Your task to perform on an android device: check android version Image 0: 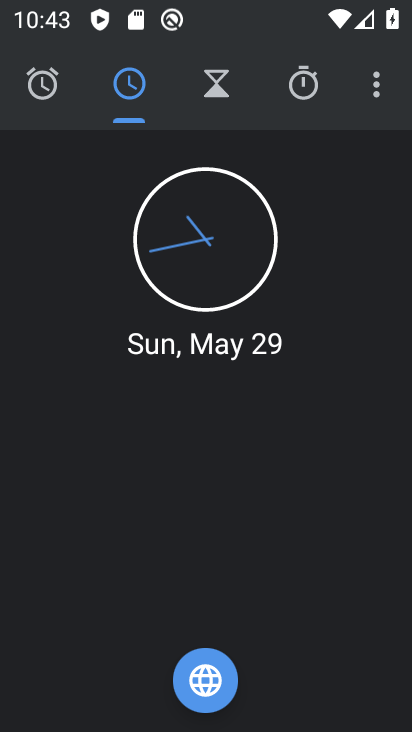
Step 0: press home button
Your task to perform on an android device: check android version Image 1: 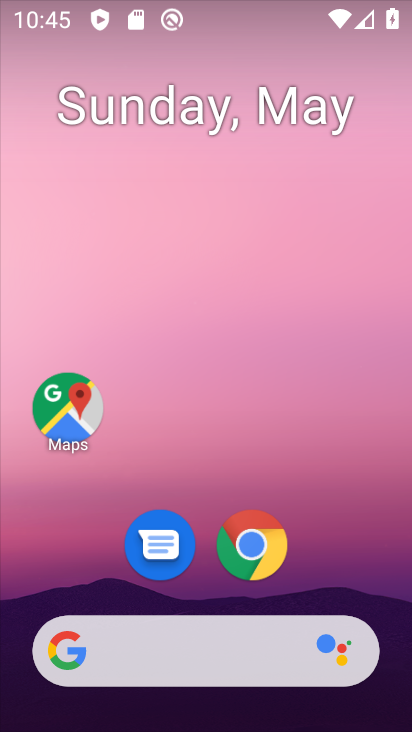
Step 1: drag from (351, 552) to (333, 168)
Your task to perform on an android device: check android version Image 2: 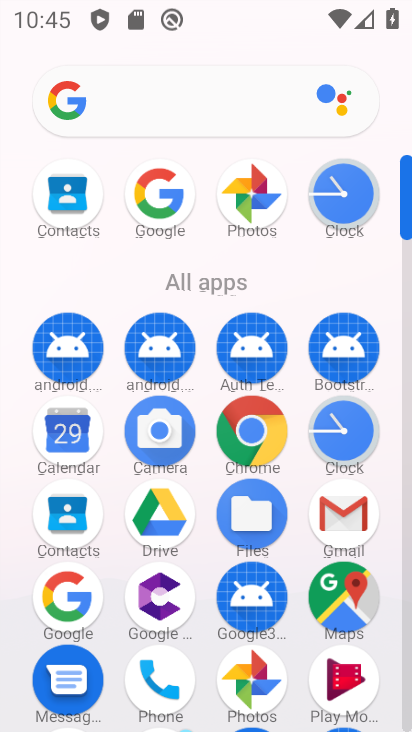
Step 2: drag from (208, 555) to (99, 144)
Your task to perform on an android device: check android version Image 3: 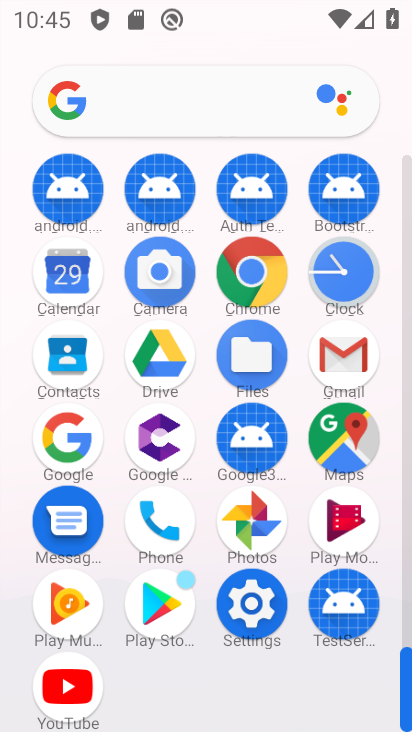
Step 3: click (272, 607)
Your task to perform on an android device: check android version Image 4: 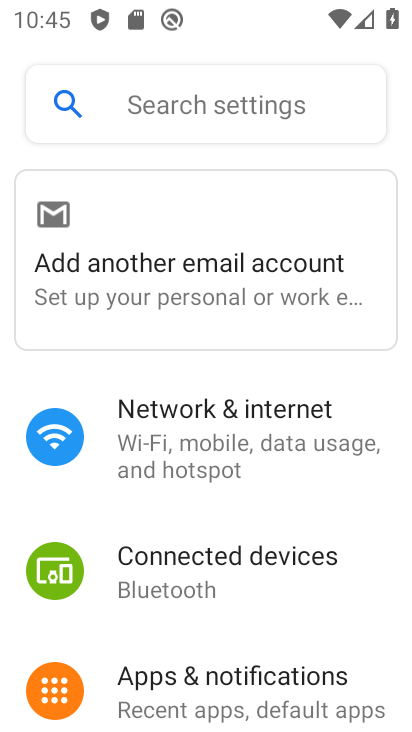
Step 4: drag from (165, 648) to (152, 207)
Your task to perform on an android device: check android version Image 5: 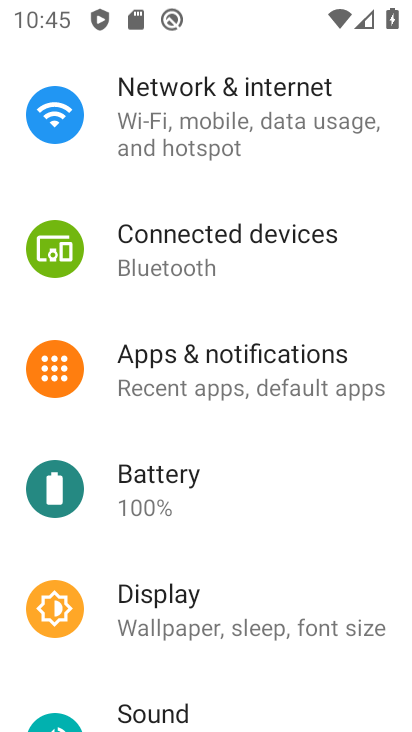
Step 5: drag from (281, 676) to (263, 126)
Your task to perform on an android device: check android version Image 6: 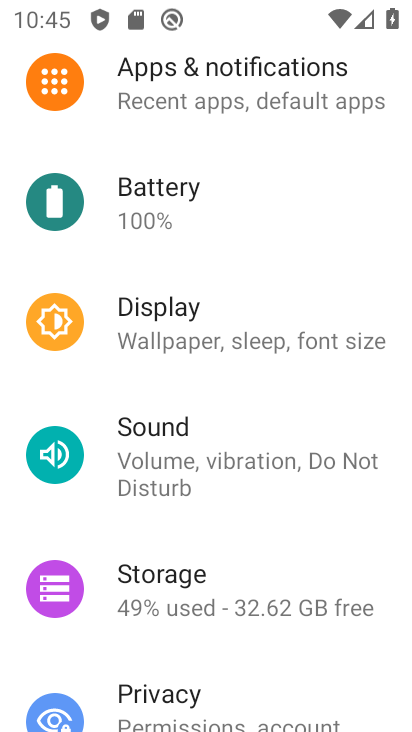
Step 6: drag from (269, 665) to (206, 63)
Your task to perform on an android device: check android version Image 7: 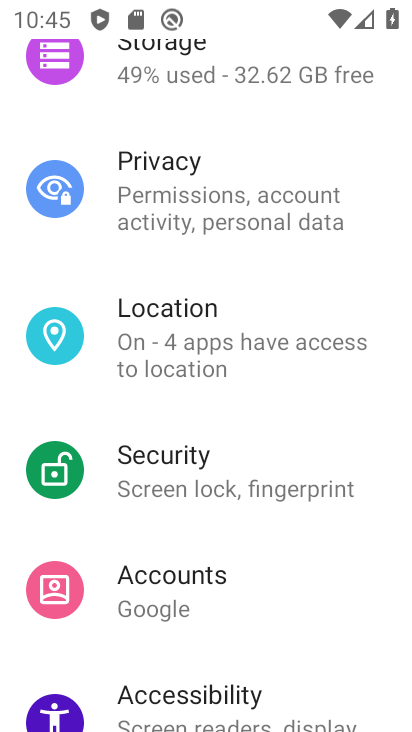
Step 7: drag from (191, 491) to (201, 109)
Your task to perform on an android device: check android version Image 8: 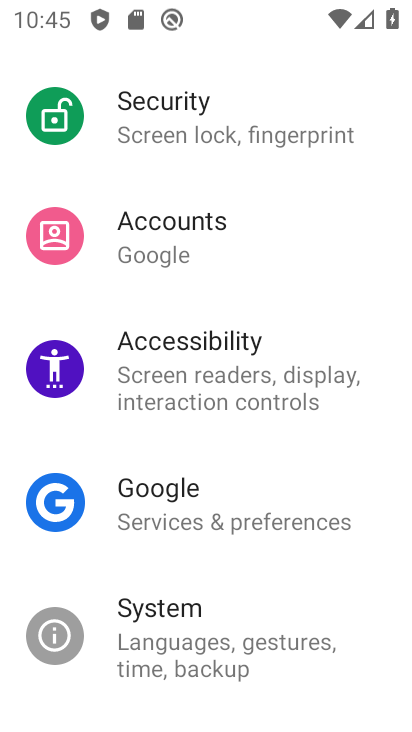
Step 8: drag from (185, 591) to (141, 219)
Your task to perform on an android device: check android version Image 9: 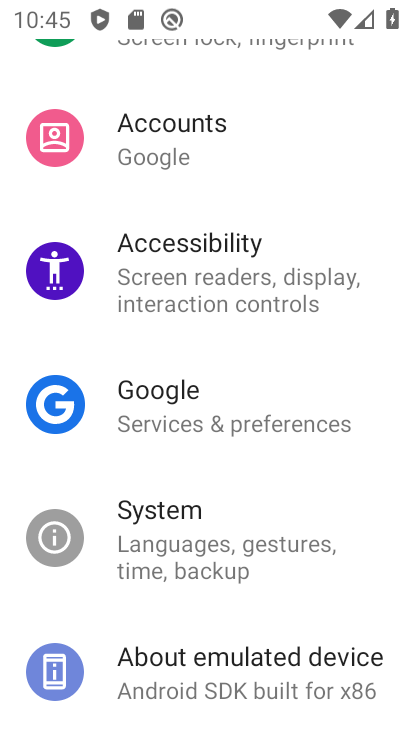
Step 9: click (278, 670)
Your task to perform on an android device: check android version Image 10: 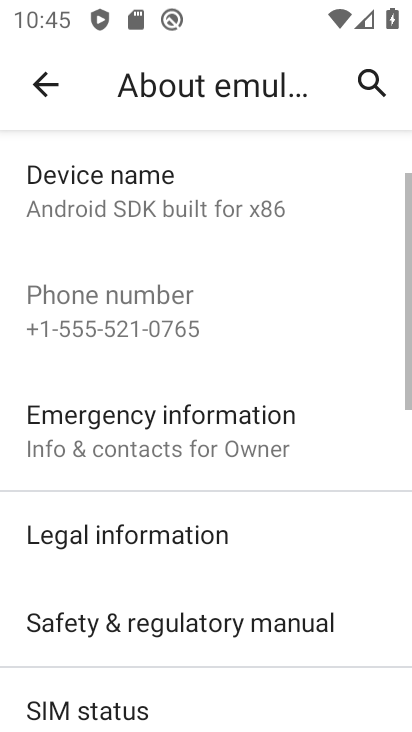
Step 10: drag from (256, 613) to (231, 166)
Your task to perform on an android device: check android version Image 11: 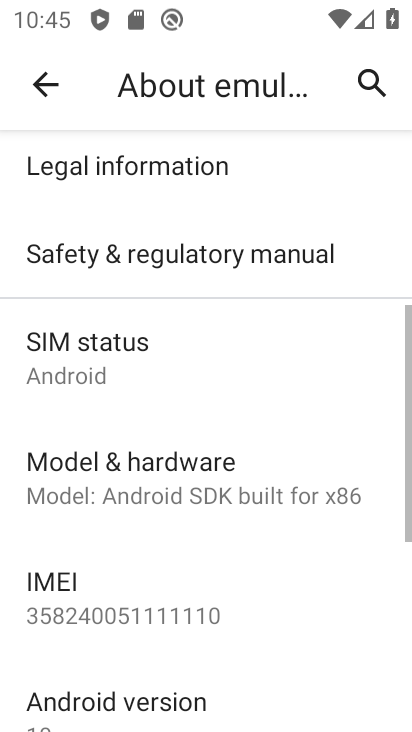
Step 11: click (156, 715)
Your task to perform on an android device: check android version Image 12: 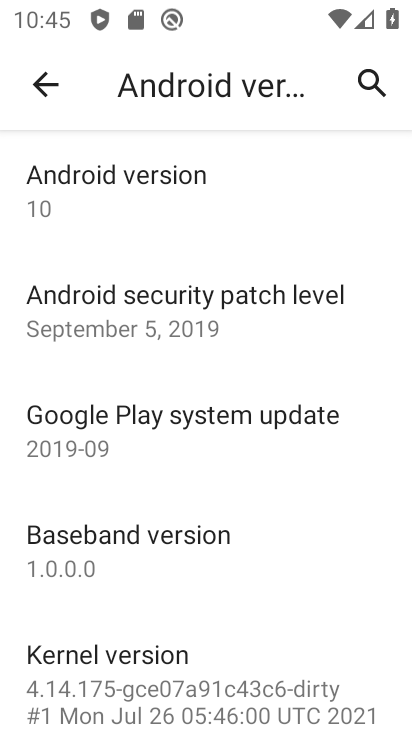
Step 12: task complete